Your task to perform on an android device: set the stopwatch Image 0: 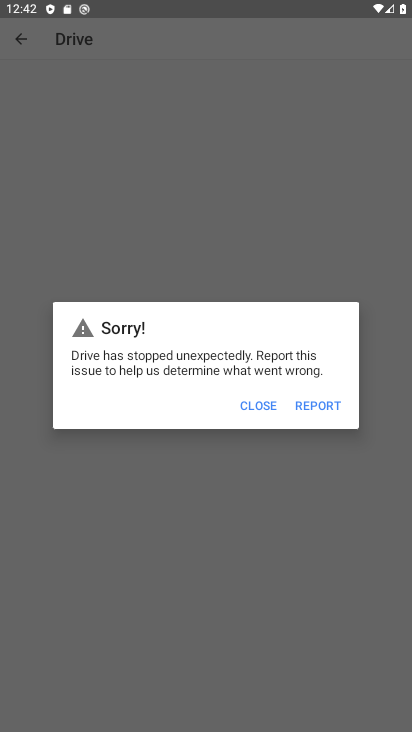
Step 0: press home button
Your task to perform on an android device: set the stopwatch Image 1: 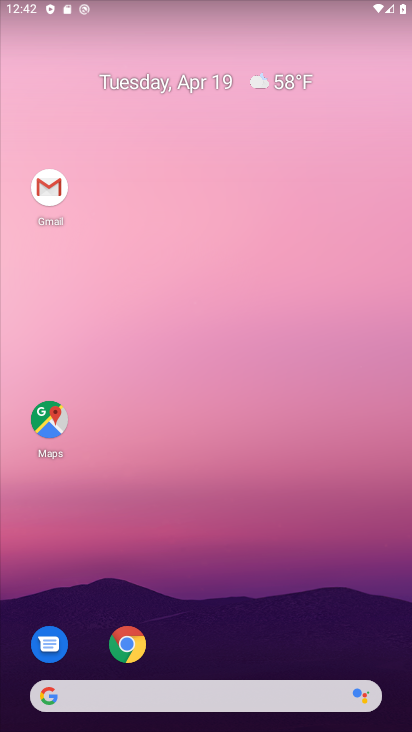
Step 1: drag from (279, 656) to (276, 162)
Your task to perform on an android device: set the stopwatch Image 2: 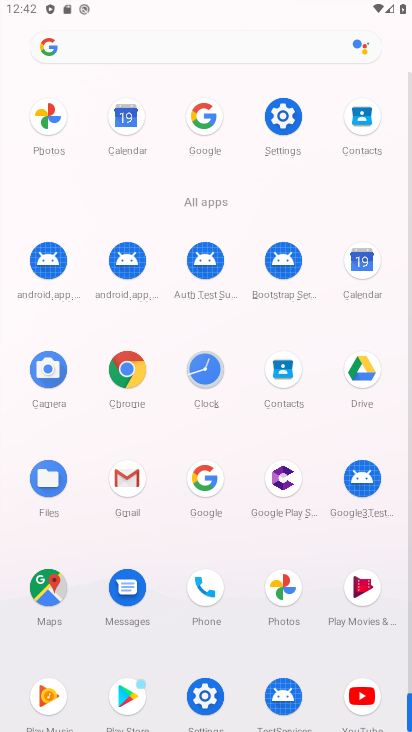
Step 2: click (210, 374)
Your task to perform on an android device: set the stopwatch Image 3: 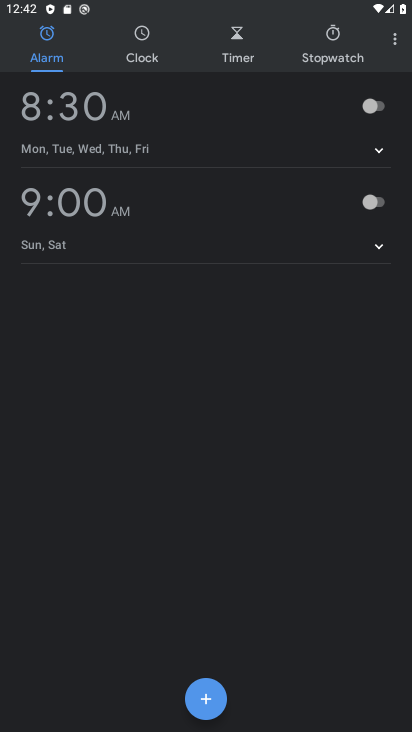
Step 3: click (336, 57)
Your task to perform on an android device: set the stopwatch Image 4: 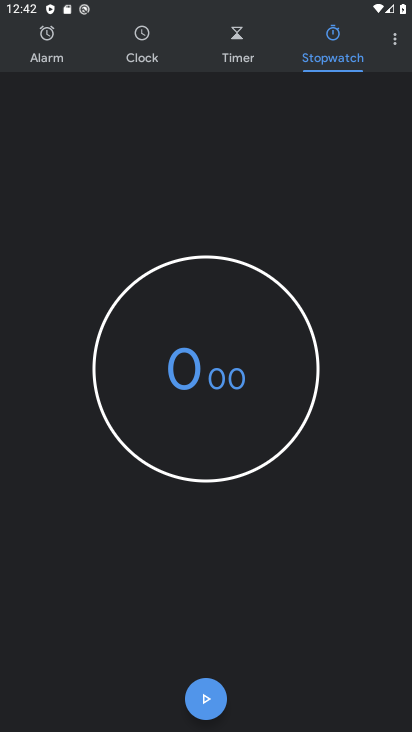
Step 4: click (203, 689)
Your task to perform on an android device: set the stopwatch Image 5: 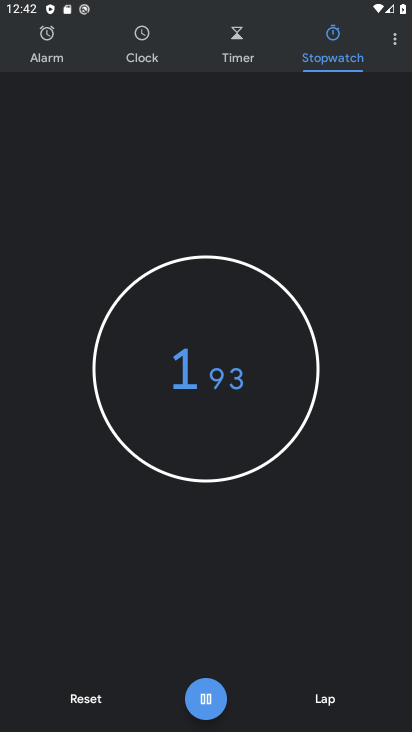
Step 5: task complete